Your task to perform on an android device: manage bookmarks in the chrome app Image 0: 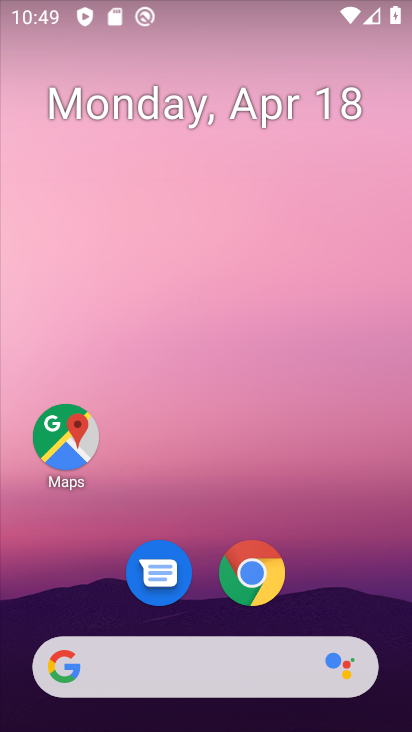
Step 0: click (257, 572)
Your task to perform on an android device: manage bookmarks in the chrome app Image 1: 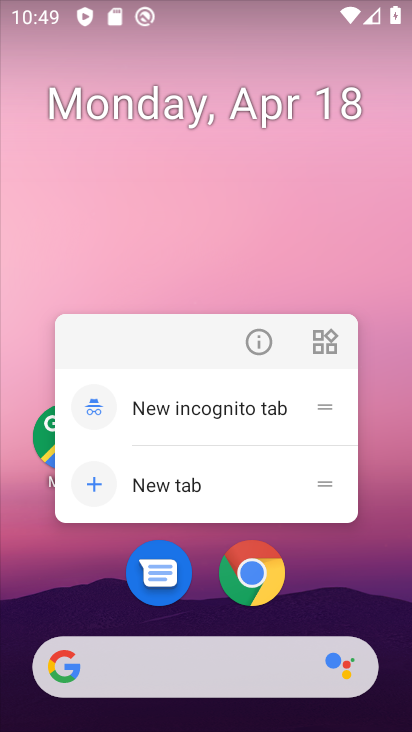
Step 1: click (317, 244)
Your task to perform on an android device: manage bookmarks in the chrome app Image 2: 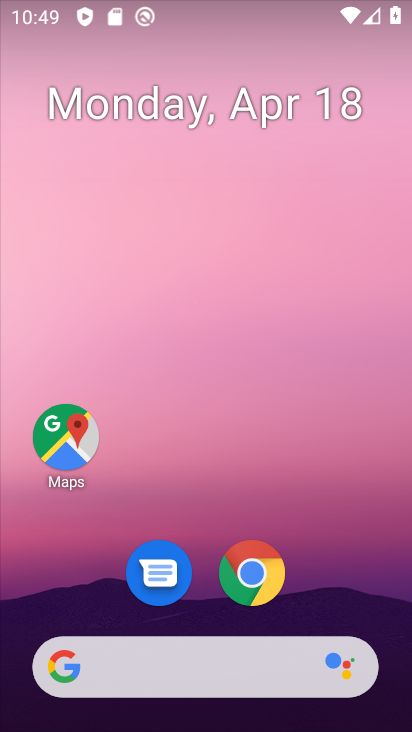
Step 2: drag from (357, 529) to (374, 52)
Your task to perform on an android device: manage bookmarks in the chrome app Image 3: 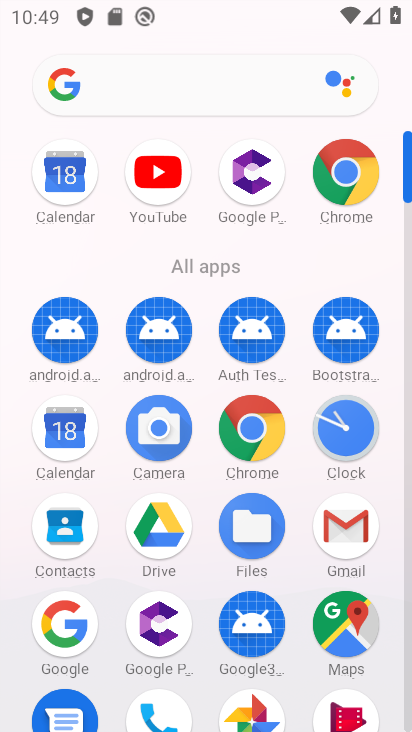
Step 3: click (254, 427)
Your task to perform on an android device: manage bookmarks in the chrome app Image 4: 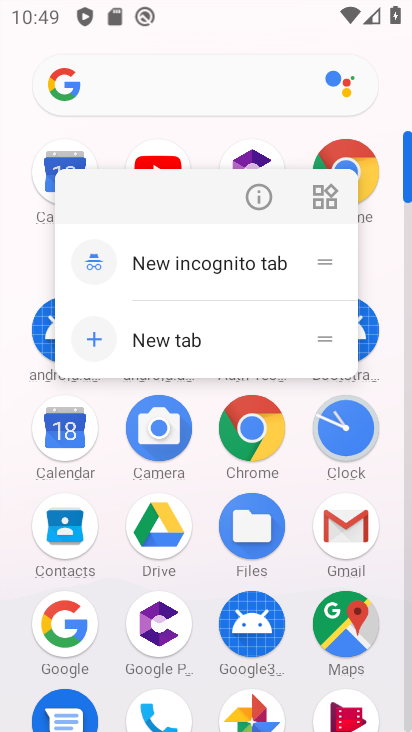
Step 4: click (263, 427)
Your task to perform on an android device: manage bookmarks in the chrome app Image 5: 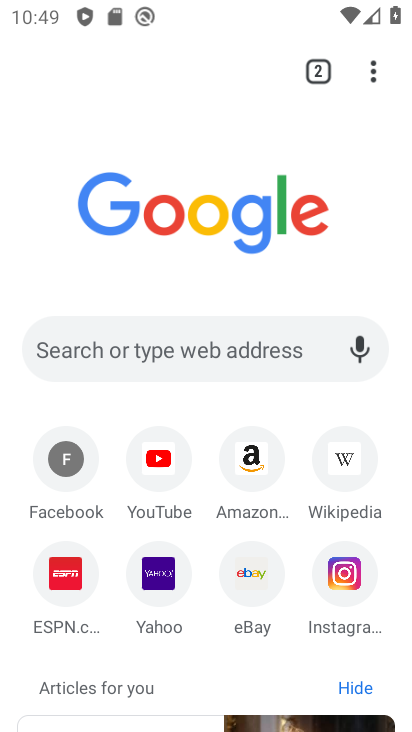
Step 5: task complete